Your task to perform on an android device: Clear the shopping cart on costco.com. Search for corsair k70 on costco.com, select the first entry, and add it to the cart. Image 0: 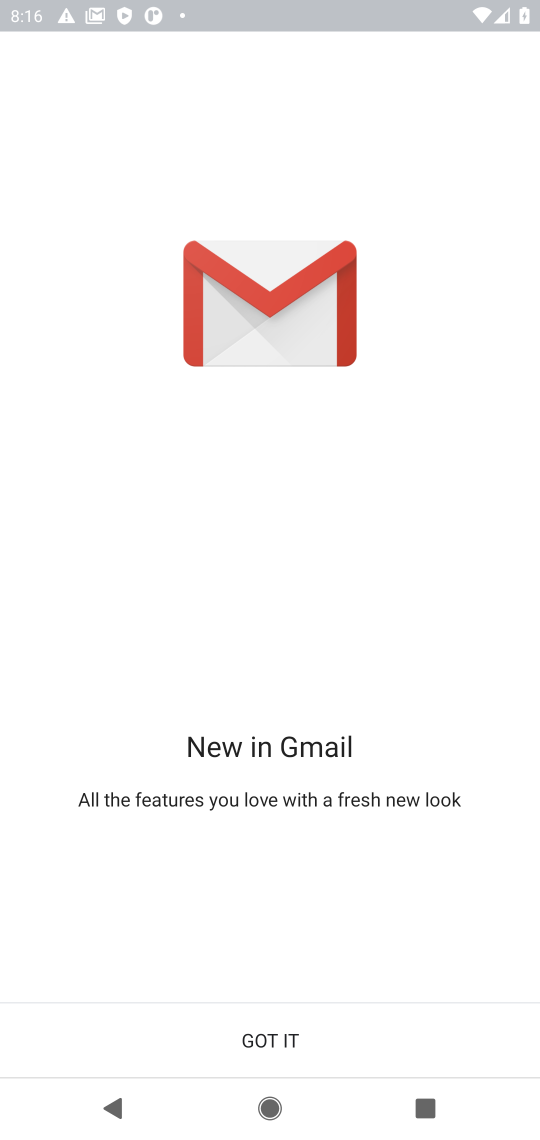
Step 0: press home button
Your task to perform on an android device: Clear the shopping cart on costco.com. Search for corsair k70 on costco.com, select the first entry, and add it to the cart. Image 1: 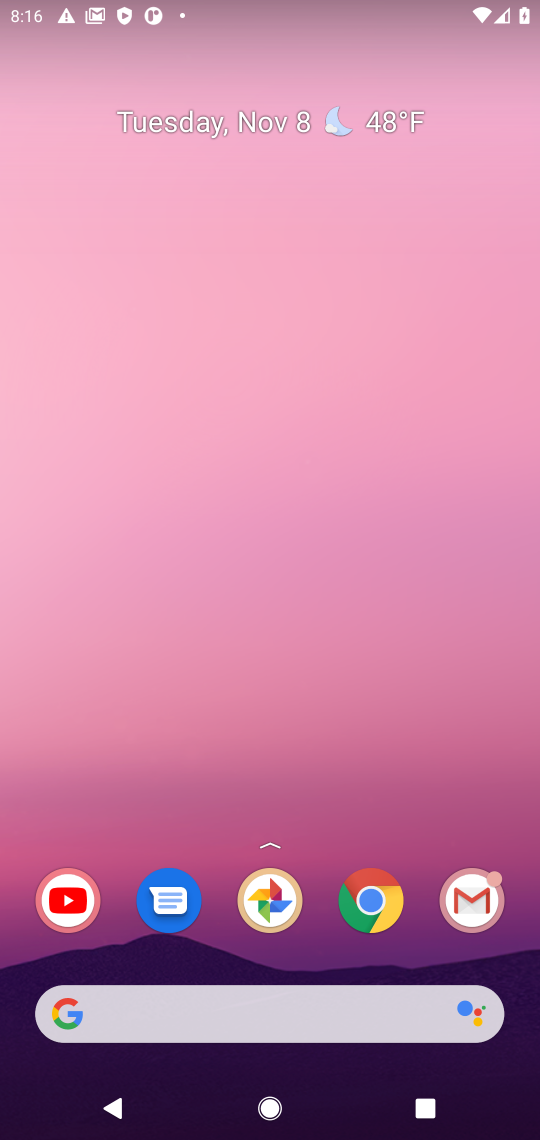
Step 1: click (385, 919)
Your task to perform on an android device: Clear the shopping cart on costco.com. Search for corsair k70 on costco.com, select the first entry, and add it to the cart. Image 2: 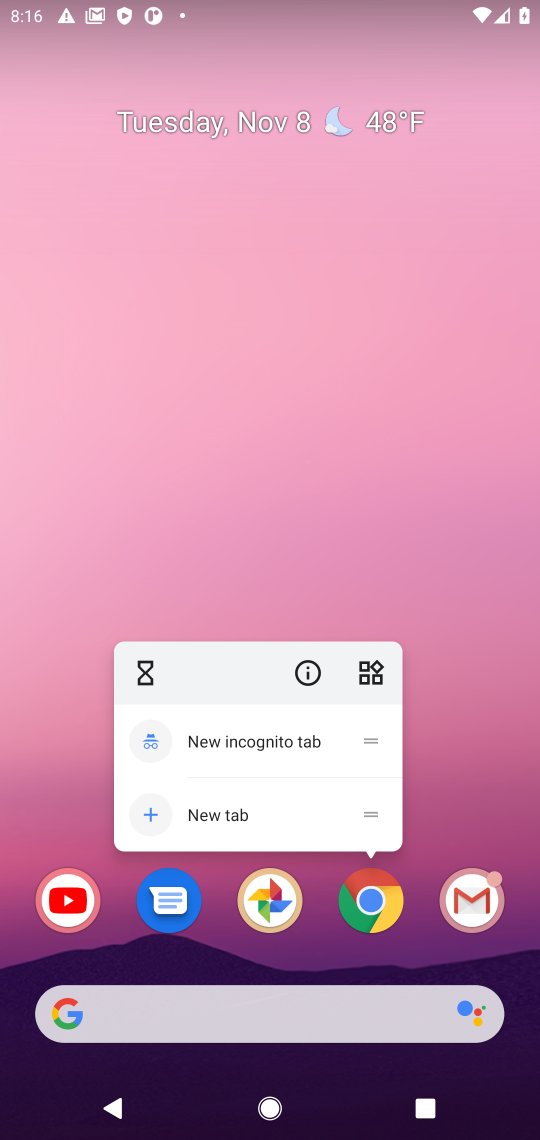
Step 2: click (372, 914)
Your task to perform on an android device: Clear the shopping cart on costco.com. Search for corsair k70 on costco.com, select the first entry, and add it to the cart. Image 3: 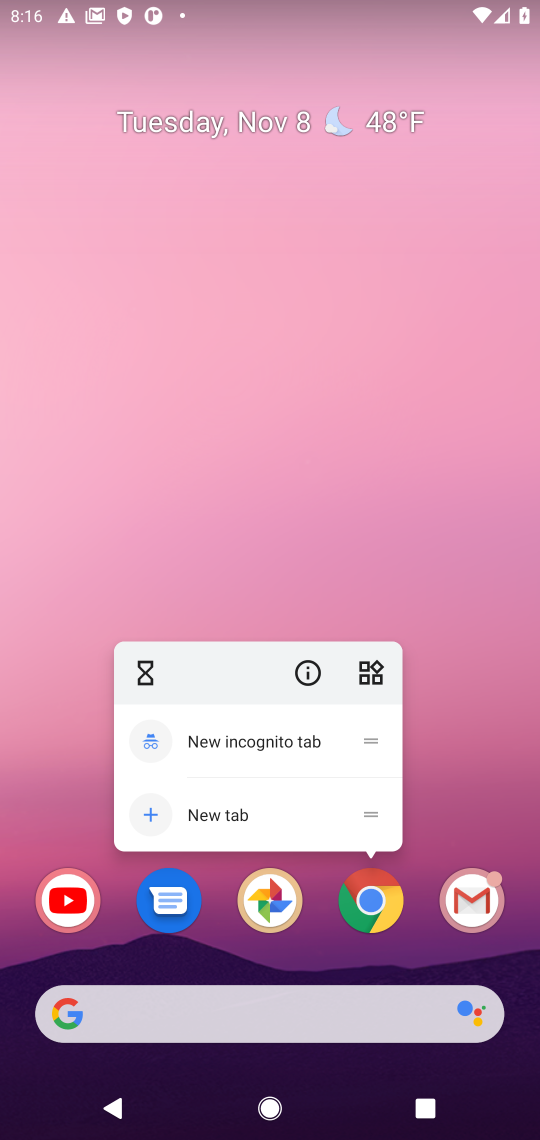
Step 3: click (364, 902)
Your task to perform on an android device: Clear the shopping cart on costco.com. Search for corsair k70 on costco.com, select the first entry, and add it to the cart. Image 4: 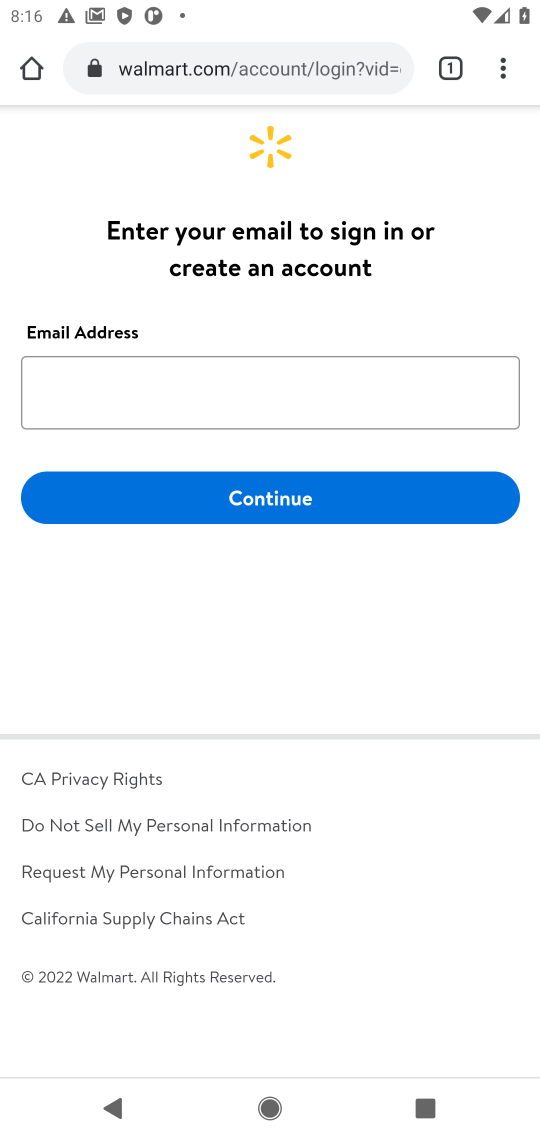
Step 4: click (187, 59)
Your task to perform on an android device: Clear the shopping cart on costco.com. Search for corsair k70 on costco.com, select the first entry, and add it to the cart. Image 5: 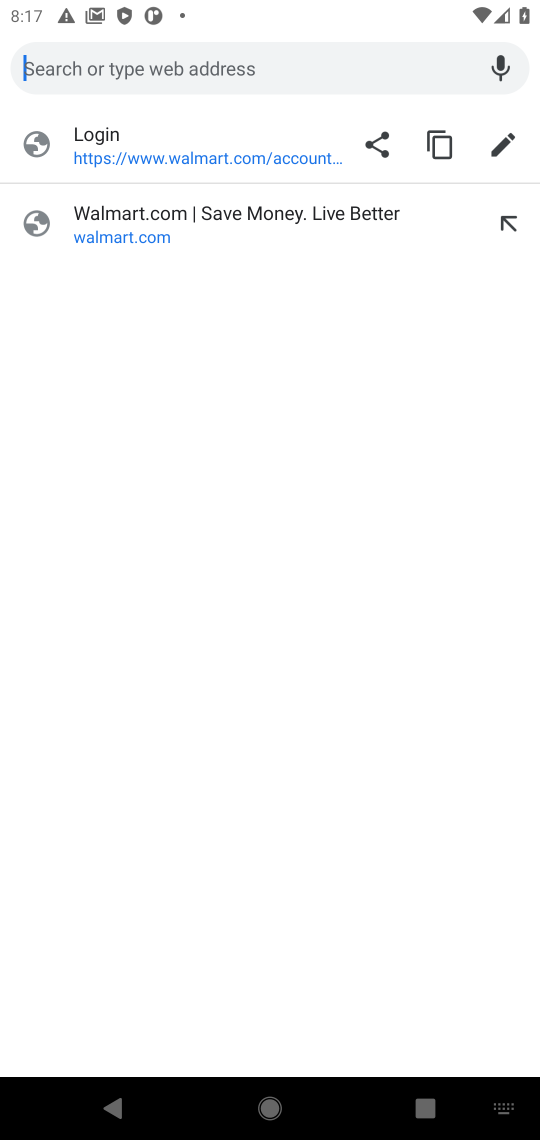
Step 5: type "costco"
Your task to perform on an android device: Clear the shopping cart on costco.com. Search for corsair k70 on costco.com, select the first entry, and add it to the cart. Image 6: 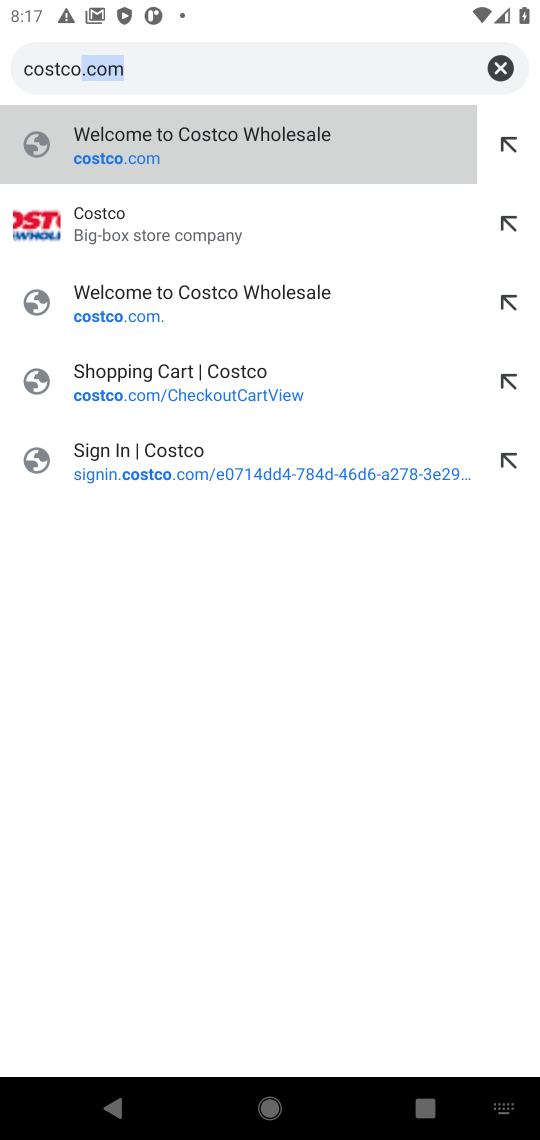
Step 6: click (95, 227)
Your task to perform on an android device: Clear the shopping cart on costco.com. Search for corsair k70 on costco.com, select the first entry, and add it to the cart. Image 7: 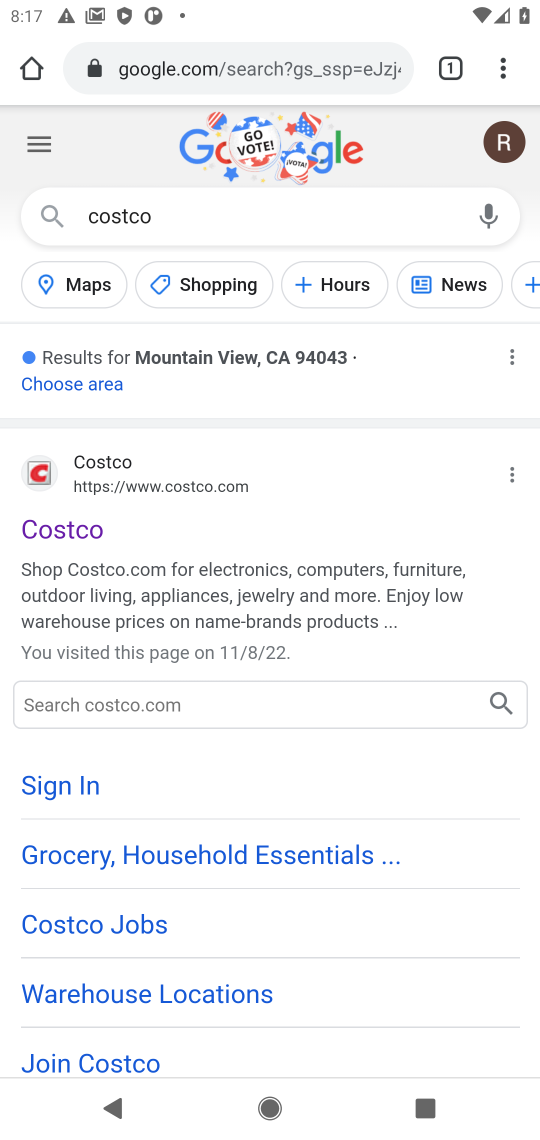
Step 7: click (92, 531)
Your task to perform on an android device: Clear the shopping cart on costco.com. Search for corsair k70 on costco.com, select the first entry, and add it to the cart. Image 8: 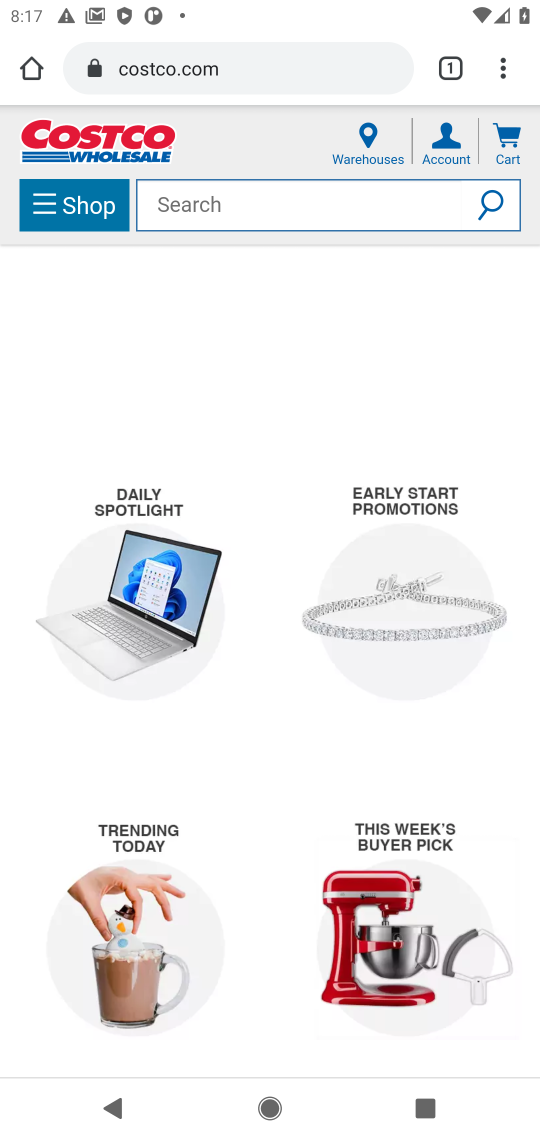
Step 8: click (235, 215)
Your task to perform on an android device: Clear the shopping cart on costco.com. Search for corsair k70 on costco.com, select the first entry, and add it to the cart. Image 9: 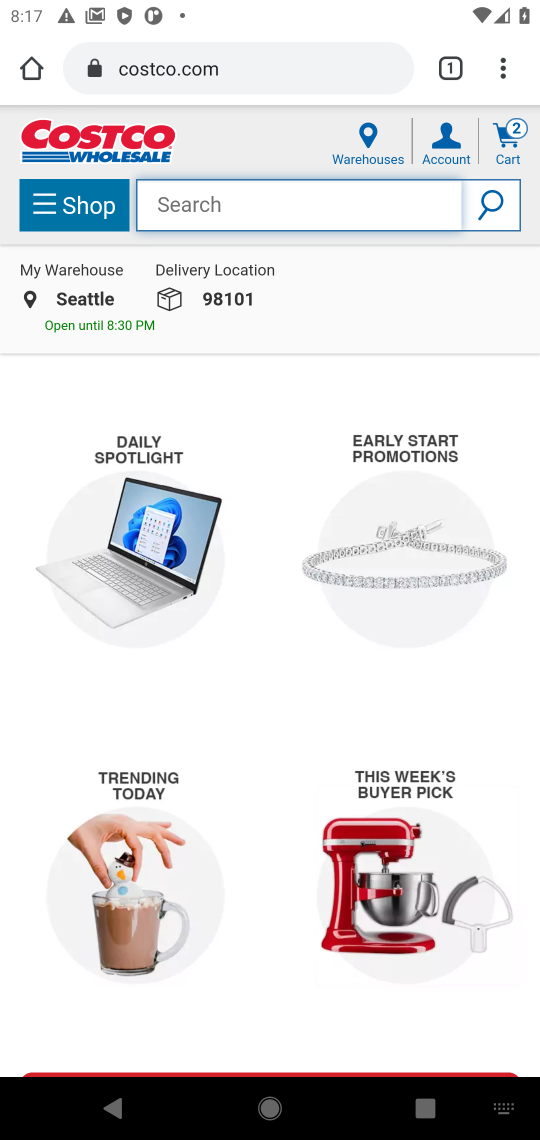
Step 9: click (241, 211)
Your task to perform on an android device: Clear the shopping cart on costco.com. Search for corsair k70 on costco.com, select the first entry, and add it to the cart. Image 10: 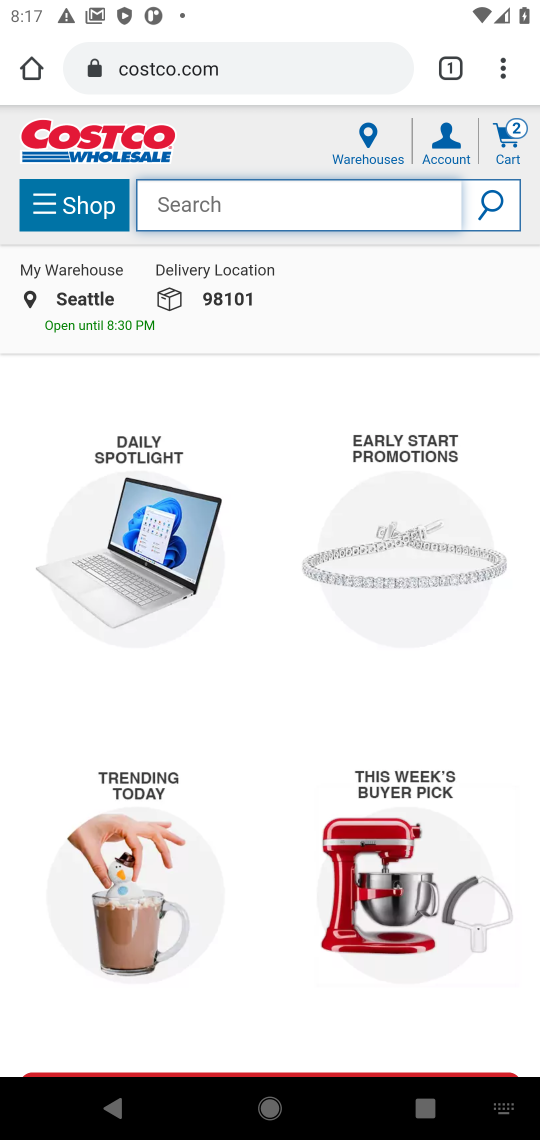
Step 10: type "corsair k70"
Your task to perform on an android device: Clear the shopping cart on costco.com. Search for corsair k70 on costco.com, select the first entry, and add it to the cart. Image 11: 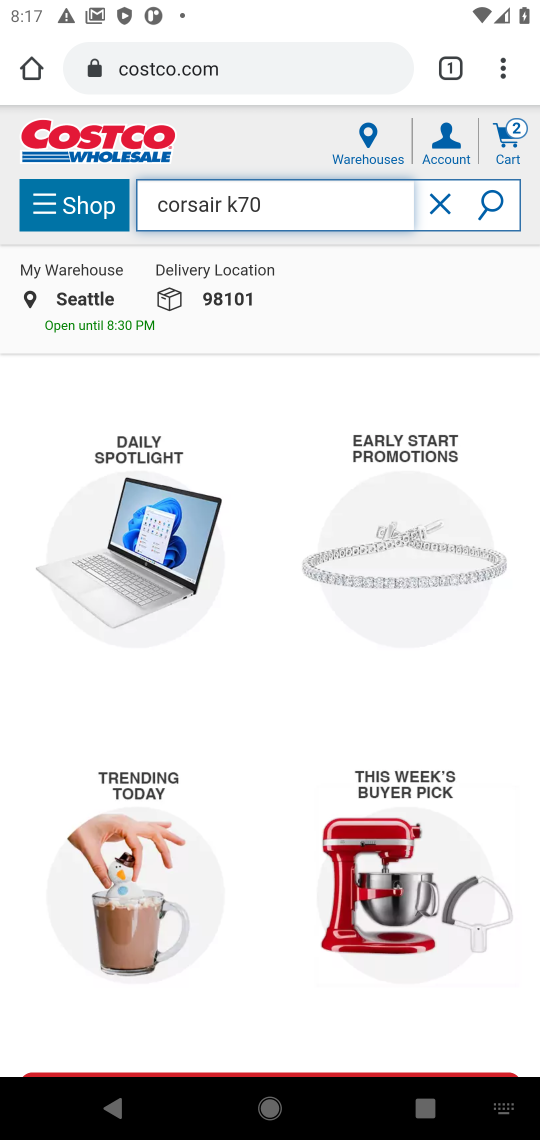
Step 11: click (493, 205)
Your task to perform on an android device: Clear the shopping cart on costco.com. Search for corsair k70 on costco.com, select the first entry, and add it to the cart. Image 12: 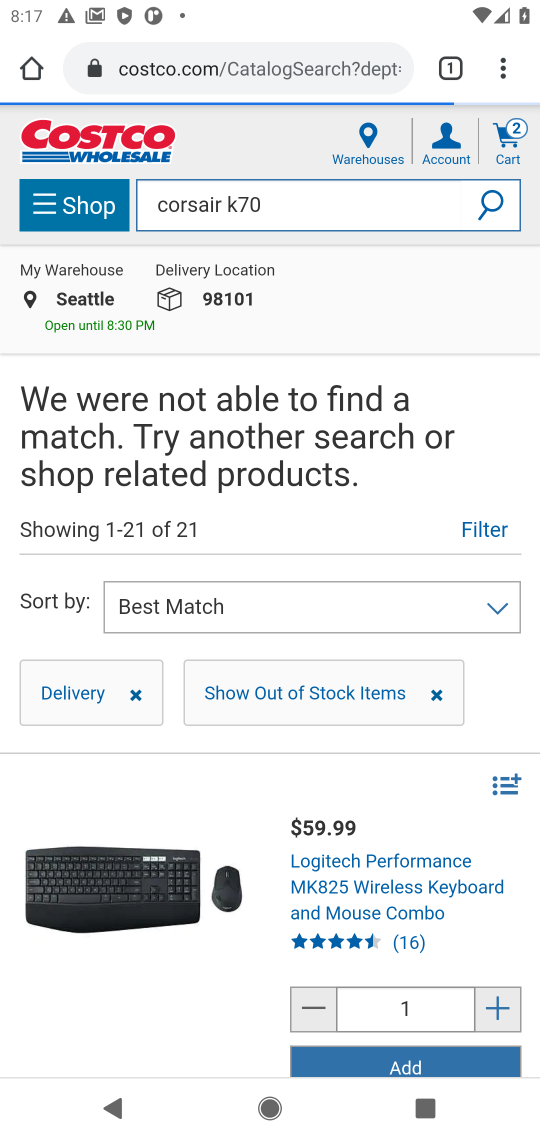
Step 12: drag from (212, 965) to (230, 573)
Your task to perform on an android device: Clear the shopping cart on costco.com. Search for corsair k70 on costco.com, select the first entry, and add it to the cart. Image 13: 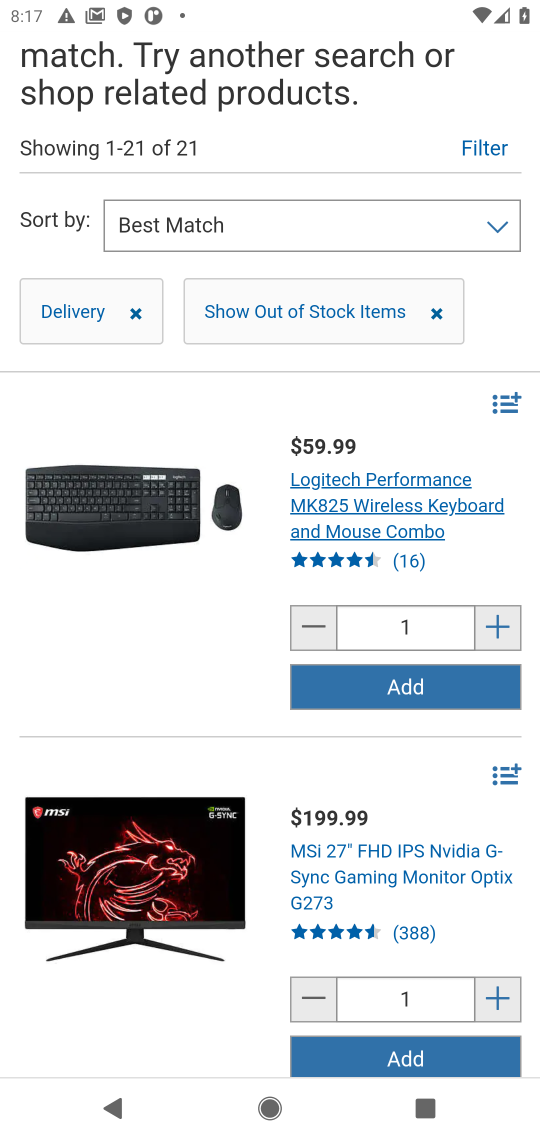
Step 13: drag from (242, 1019) to (161, 477)
Your task to perform on an android device: Clear the shopping cart on costco.com. Search for corsair k70 on costco.com, select the first entry, and add it to the cart. Image 14: 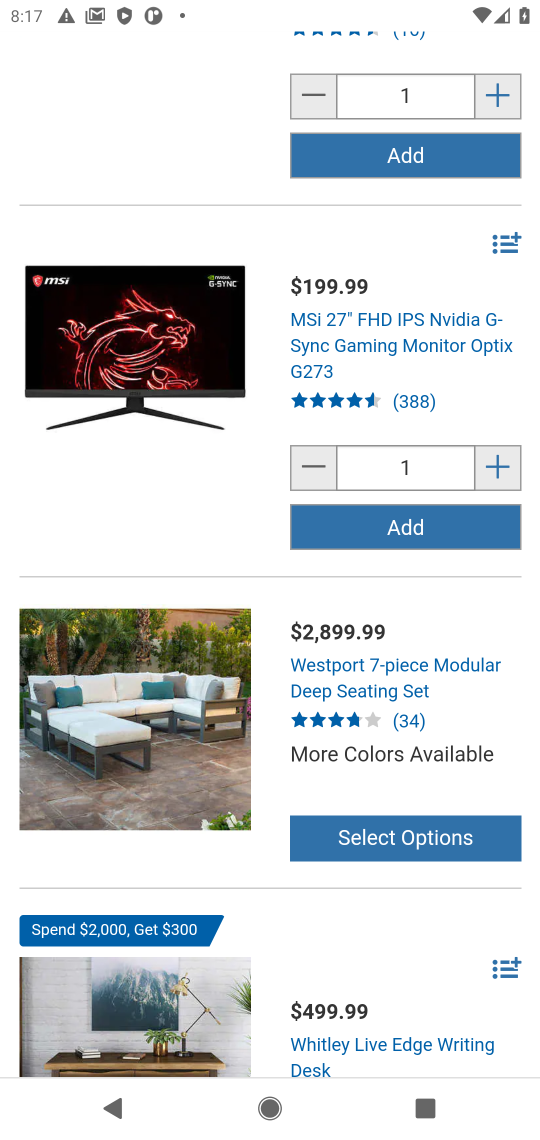
Step 14: drag from (160, 746) to (219, 338)
Your task to perform on an android device: Clear the shopping cart on costco.com. Search for corsair k70 on costco.com, select the first entry, and add it to the cart. Image 15: 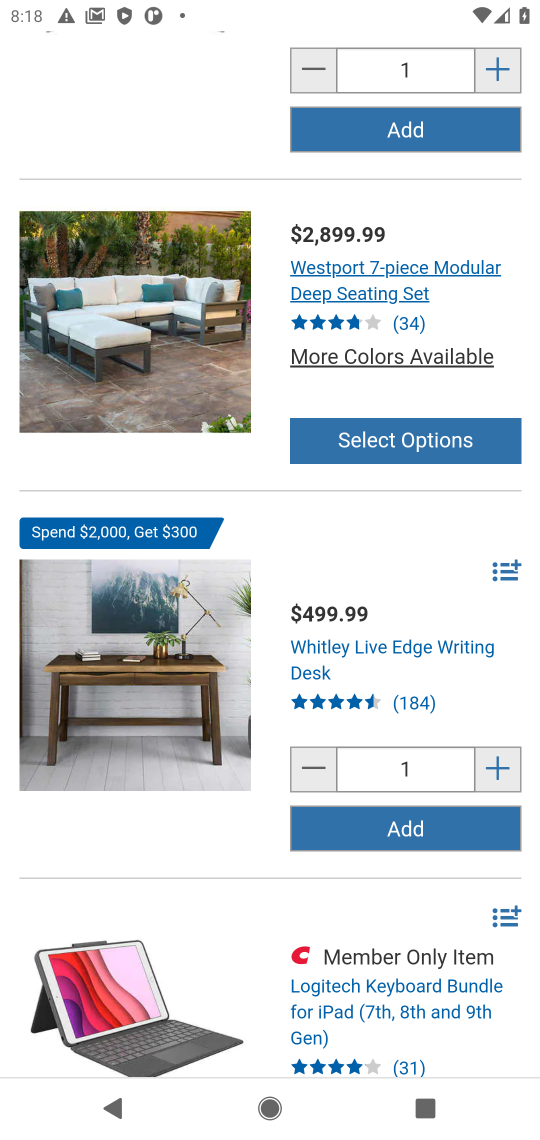
Step 15: drag from (285, 987) to (473, 522)
Your task to perform on an android device: Clear the shopping cart on costco.com. Search for corsair k70 on costco.com, select the first entry, and add it to the cart. Image 16: 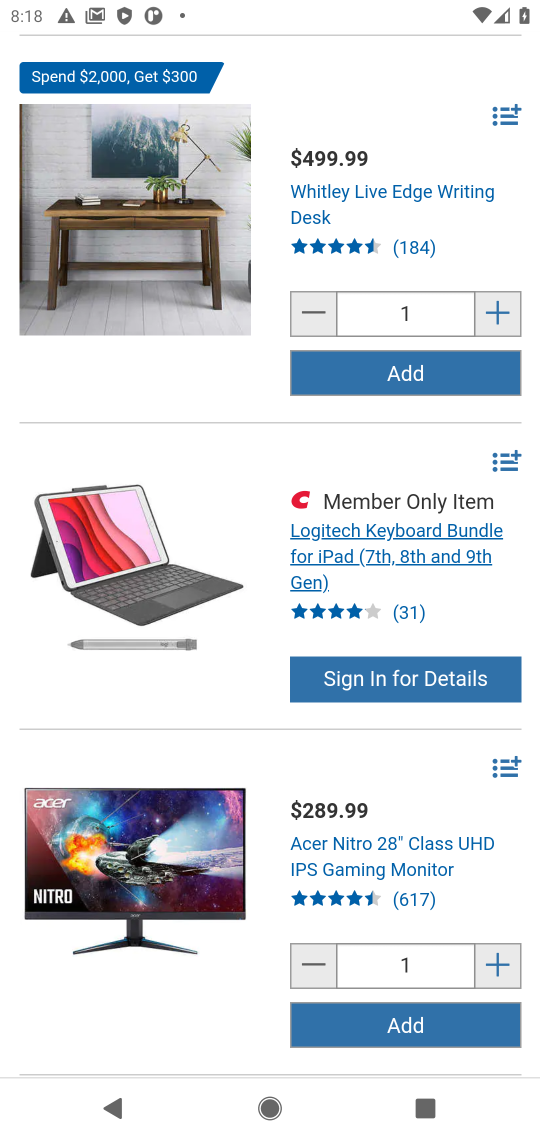
Step 16: drag from (159, 904) to (153, 557)
Your task to perform on an android device: Clear the shopping cart on costco.com. Search for corsair k70 on costco.com, select the first entry, and add it to the cart. Image 17: 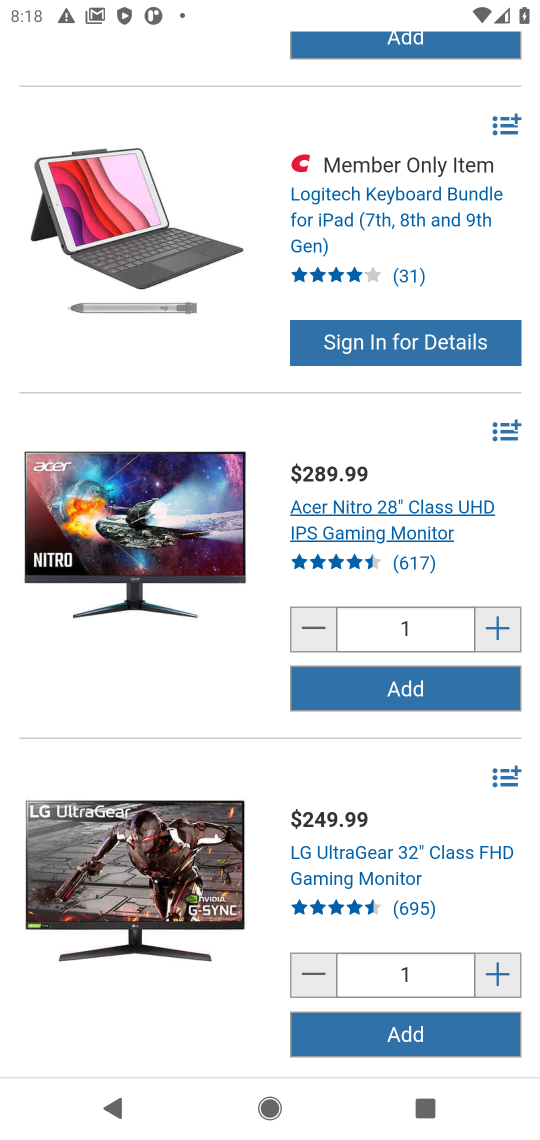
Step 17: click (133, 906)
Your task to perform on an android device: Clear the shopping cart on costco.com. Search for corsair k70 on costco.com, select the first entry, and add it to the cart. Image 18: 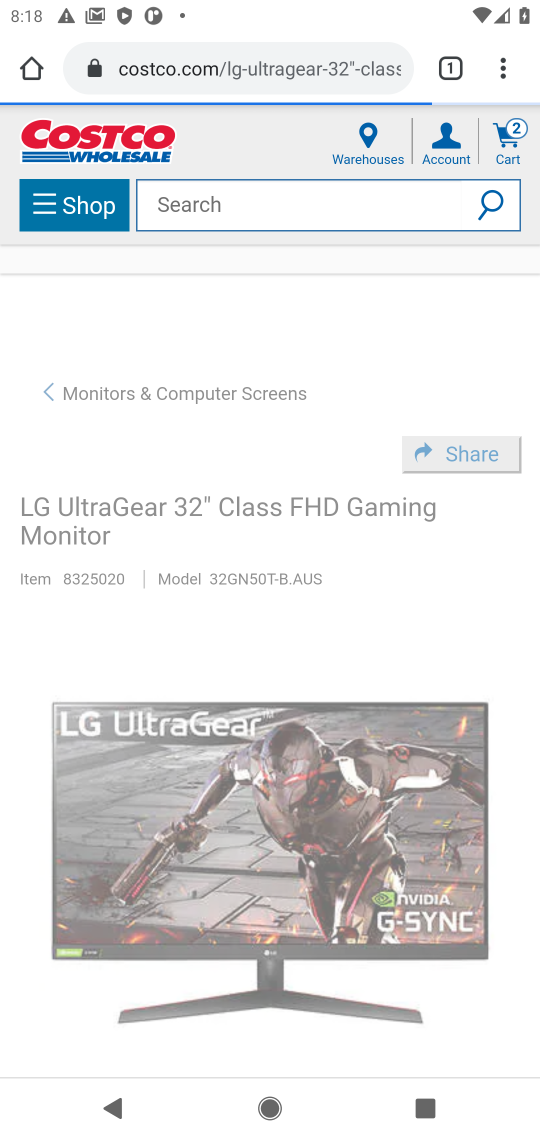
Step 18: drag from (392, 948) to (340, 419)
Your task to perform on an android device: Clear the shopping cart on costco.com. Search for corsair k70 on costco.com, select the first entry, and add it to the cart. Image 19: 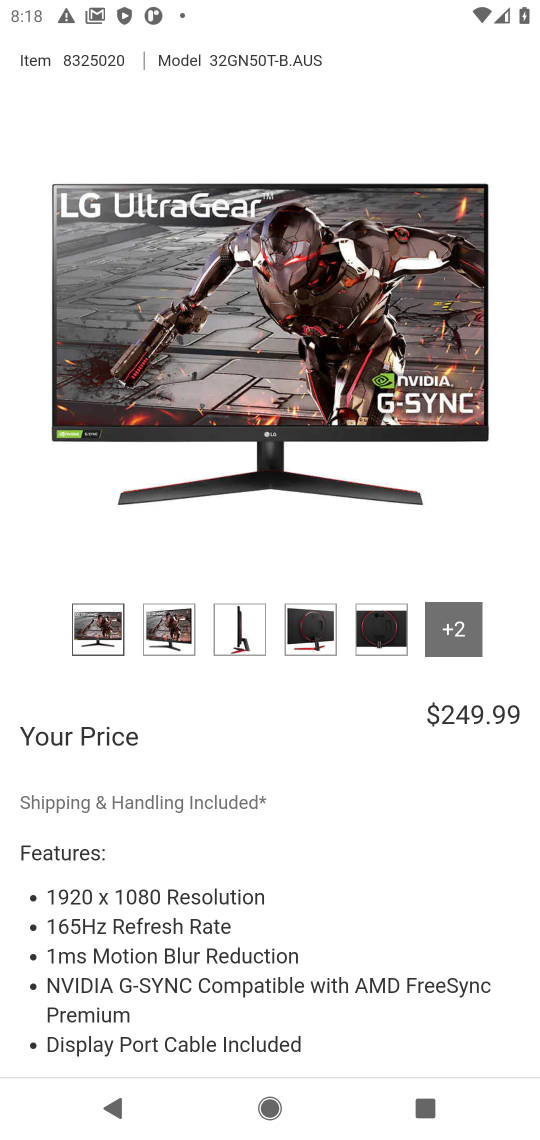
Step 19: drag from (373, 716) to (376, 466)
Your task to perform on an android device: Clear the shopping cart on costco.com. Search for corsair k70 on costco.com, select the first entry, and add it to the cart. Image 20: 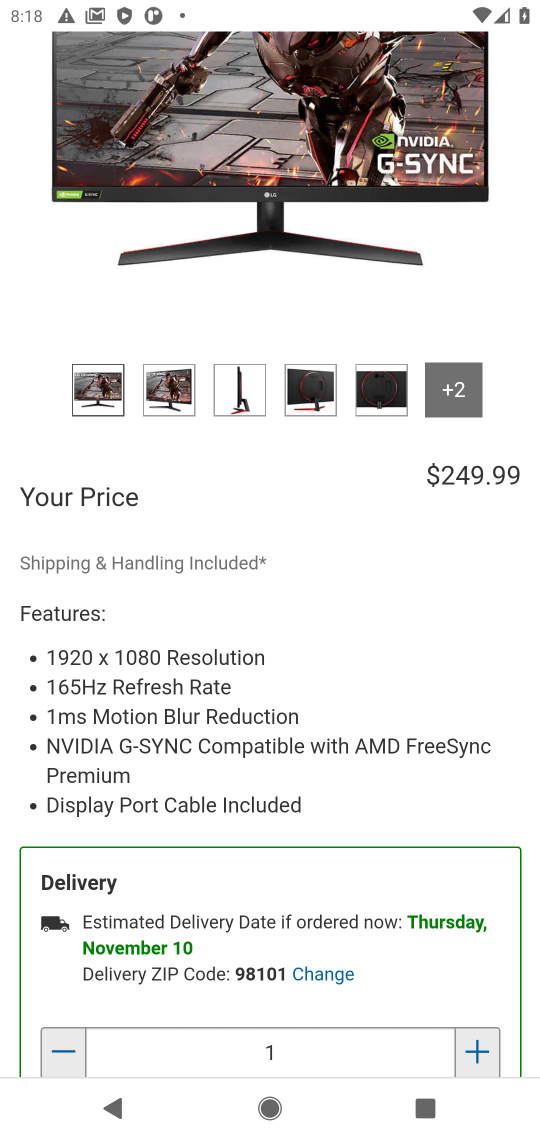
Step 20: drag from (340, 700) to (349, 345)
Your task to perform on an android device: Clear the shopping cart on costco.com. Search for corsair k70 on costco.com, select the first entry, and add it to the cart. Image 21: 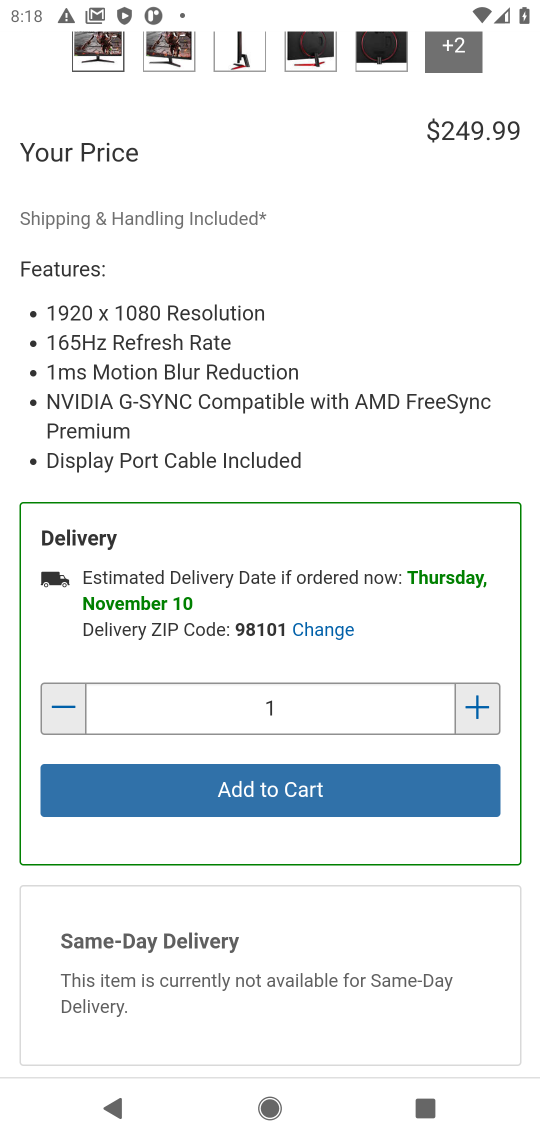
Step 21: click (306, 799)
Your task to perform on an android device: Clear the shopping cart on costco.com. Search for corsair k70 on costco.com, select the first entry, and add it to the cart. Image 22: 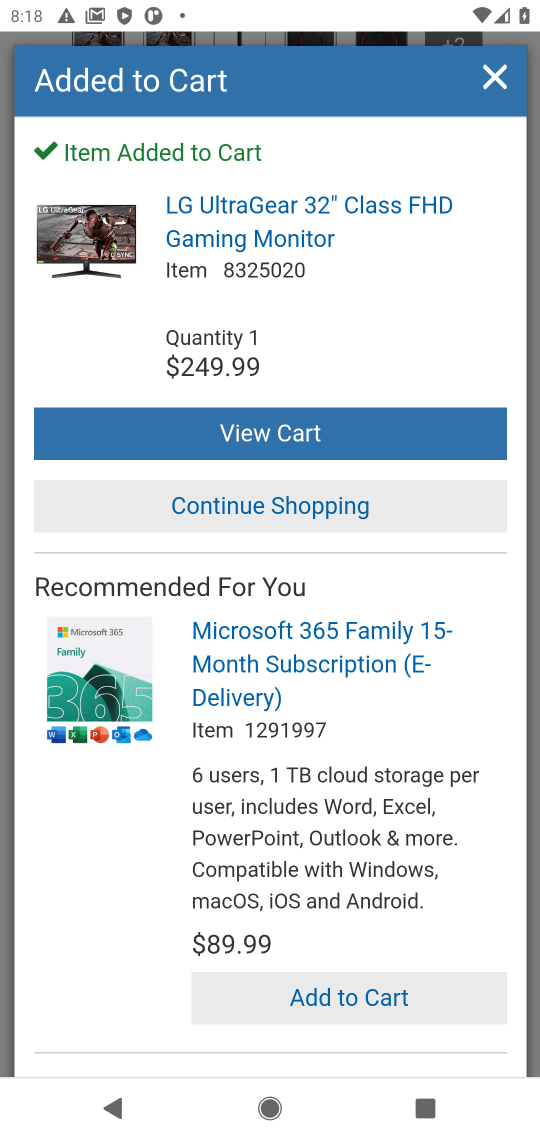
Step 22: click (313, 423)
Your task to perform on an android device: Clear the shopping cart on costco.com. Search for corsair k70 on costco.com, select the first entry, and add it to the cart. Image 23: 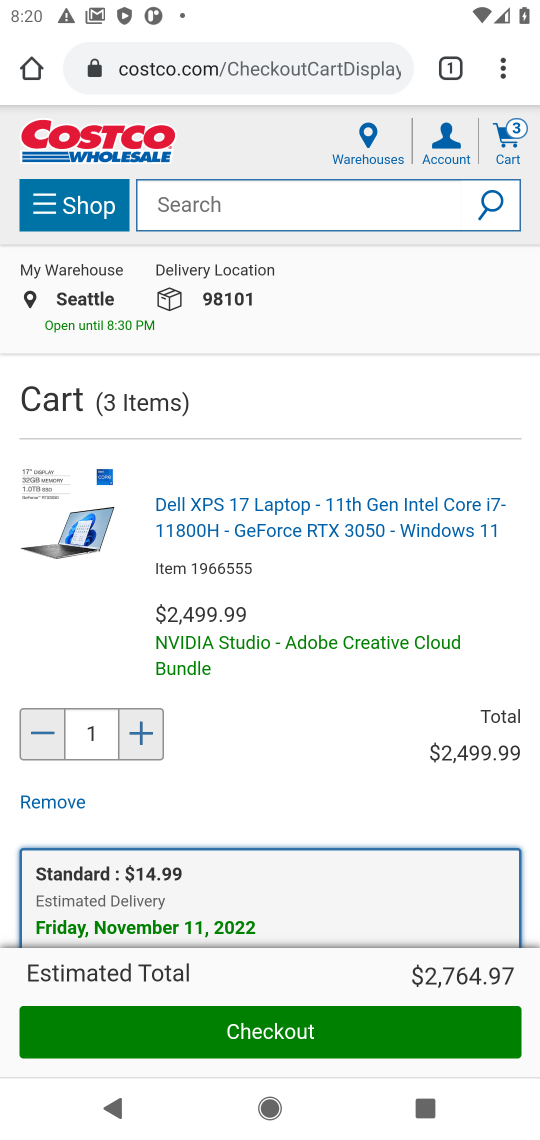
Step 23: task complete